Your task to perform on an android device: change the clock display to show seconds Image 0: 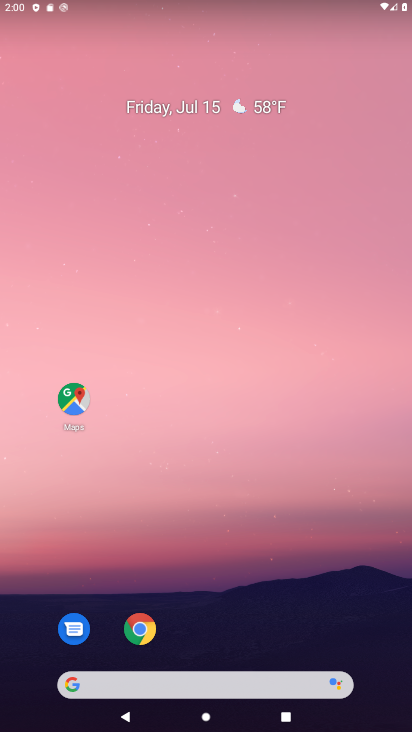
Step 0: drag from (266, 692) to (175, 305)
Your task to perform on an android device: change the clock display to show seconds Image 1: 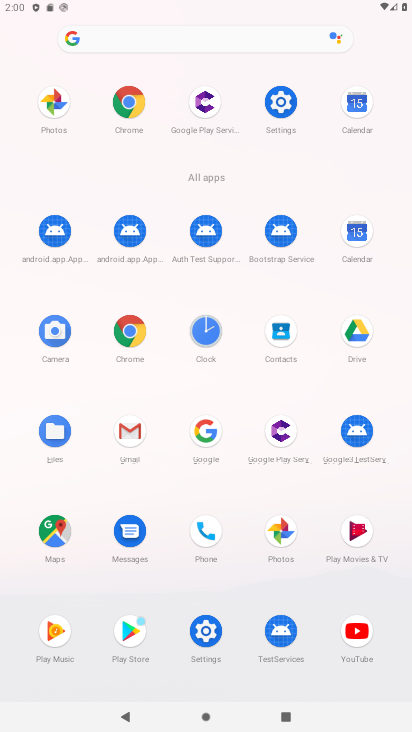
Step 1: click (280, 115)
Your task to perform on an android device: change the clock display to show seconds Image 2: 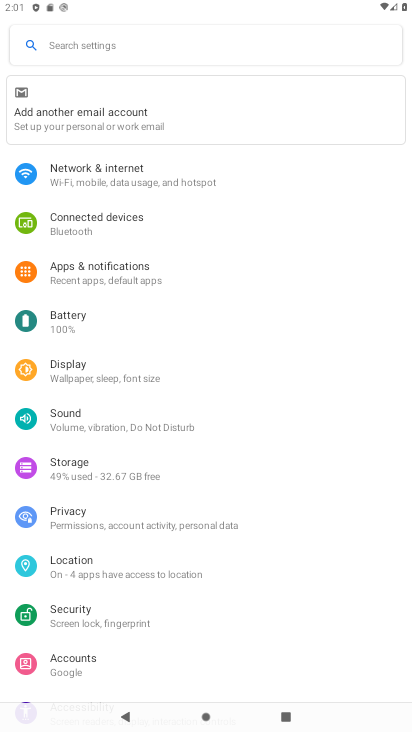
Step 2: click (81, 374)
Your task to perform on an android device: change the clock display to show seconds Image 3: 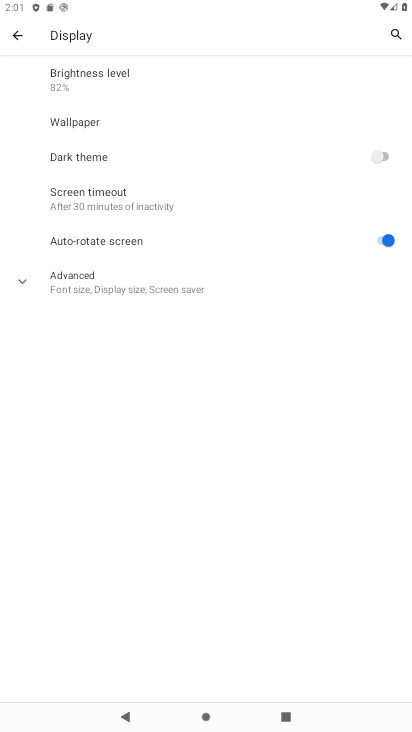
Step 3: click (21, 29)
Your task to perform on an android device: change the clock display to show seconds Image 4: 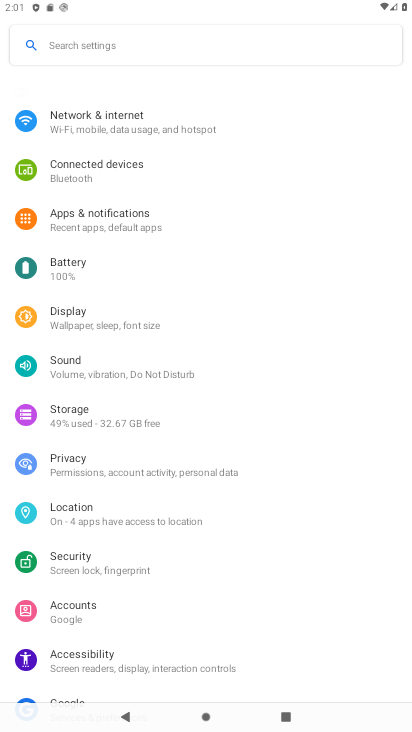
Step 4: press home button
Your task to perform on an android device: change the clock display to show seconds Image 5: 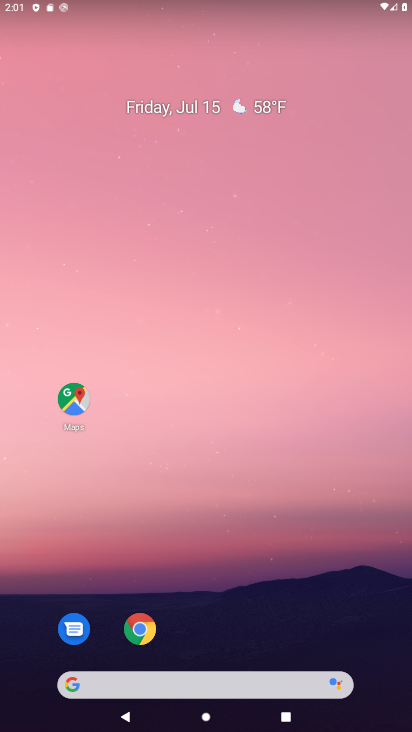
Step 5: click (220, 194)
Your task to perform on an android device: change the clock display to show seconds Image 6: 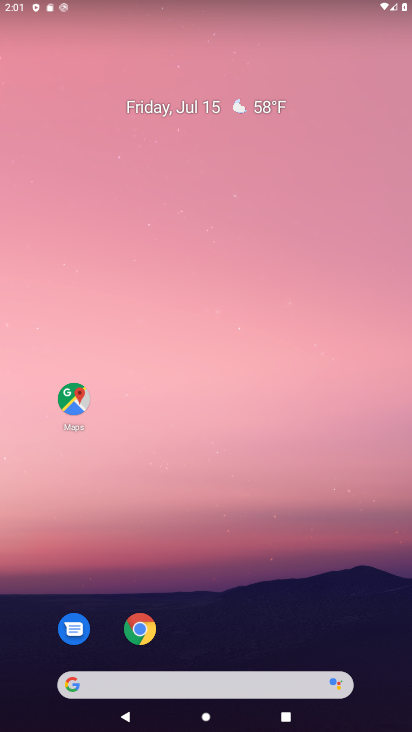
Step 6: click (207, 354)
Your task to perform on an android device: change the clock display to show seconds Image 7: 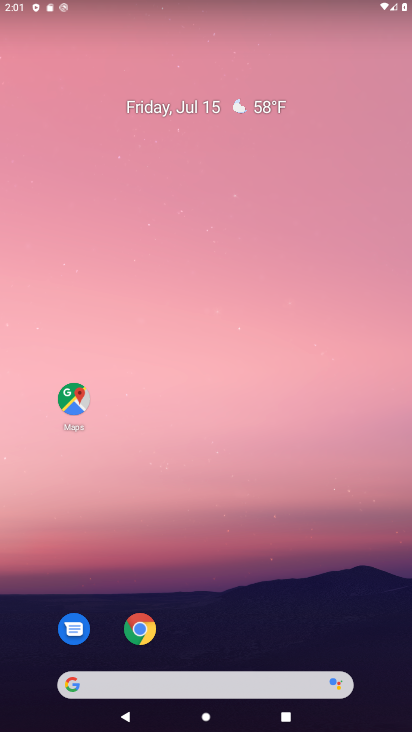
Step 7: drag from (270, 565) to (270, 396)
Your task to perform on an android device: change the clock display to show seconds Image 8: 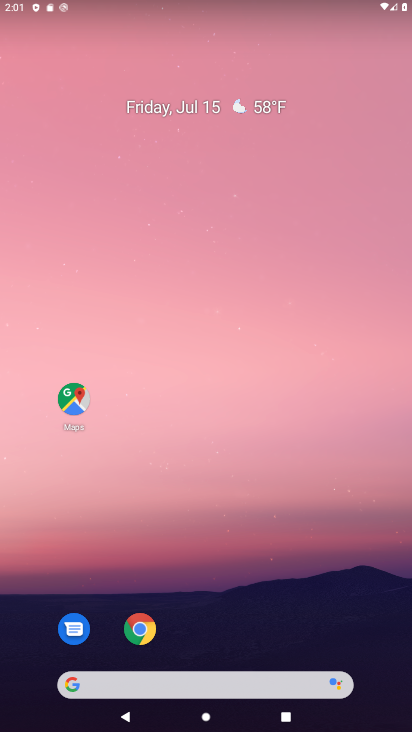
Step 8: drag from (272, 437) to (272, 219)
Your task to perform on an android device: change the clock display to show seconds Image 9: 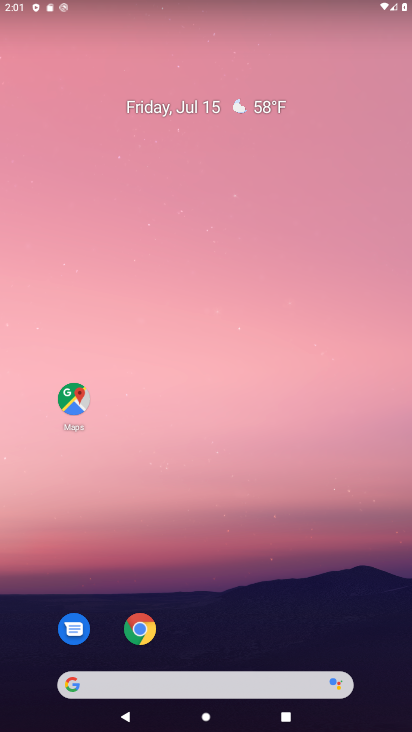
Step 9: drag from (222, 532) to (198, 255)
Your task to perform on an android device: change the clock display to show seconds Image 10: 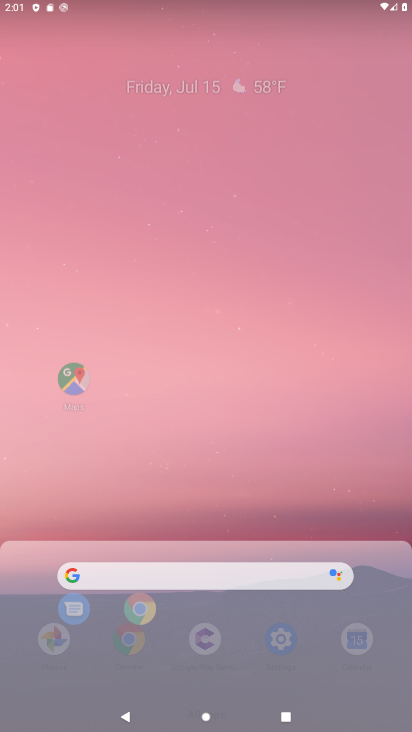
Step 10: drag from (260, 585) to (253, 304)
Your task to perform on an android device: change the clock display to show seconds Image 11: 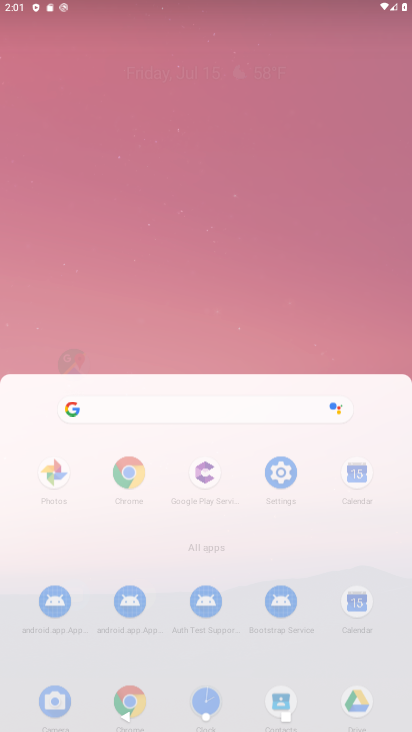
Step 11: drag from (218, 638) to (186, 288)
Your task to perform on an android device: change the clock display to show seconds Image 12: 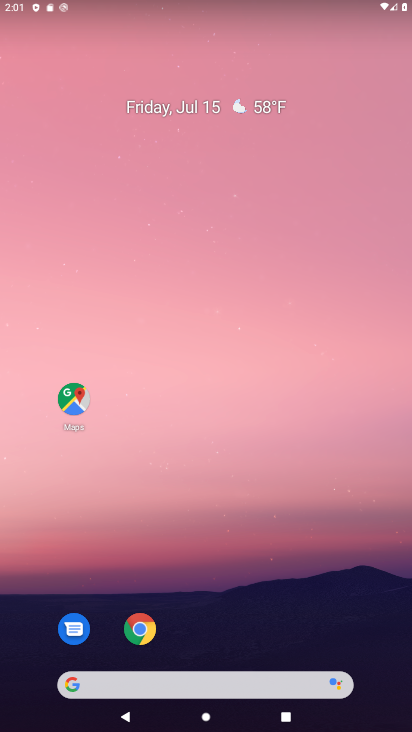
Step 12: drag from (185, 521) to (206, 81)
Your task to perform on an android device: change the clock display to show seconds Image 13: 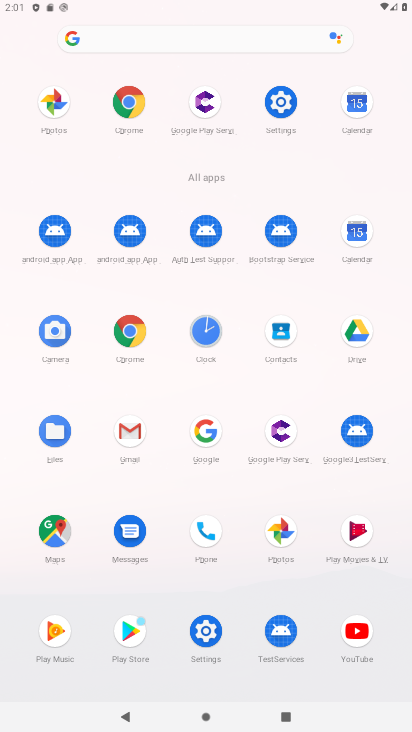
Step 13: drag from (187, 564) to (239, 113)
Your task to perform on an android device: change the clock display to show seconds Image 14: 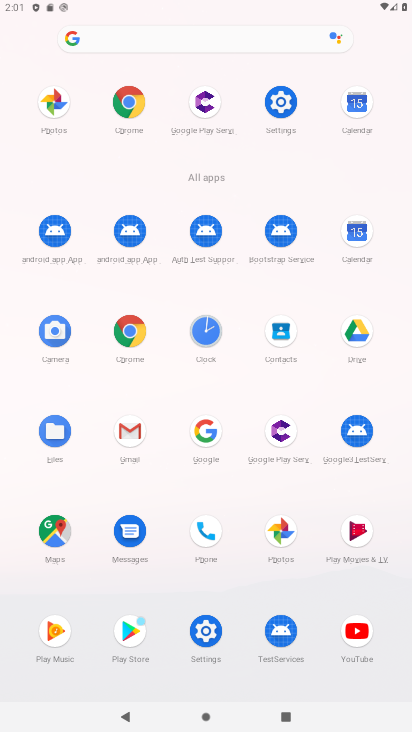
Step 14: click (215, 329)
Your task to perform on an android device: change the clock display to show seconds Image 15: 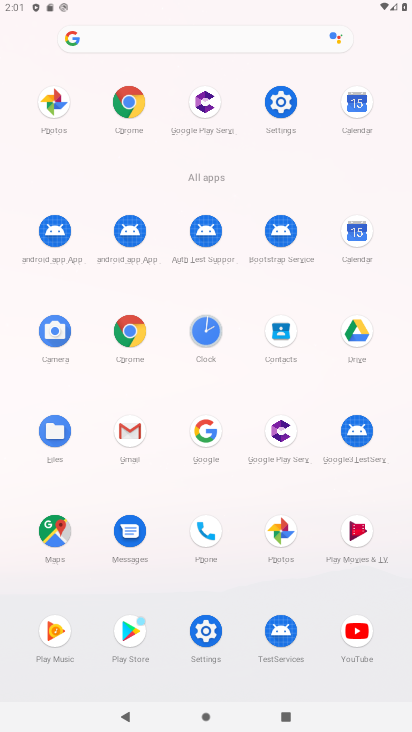
Step 15: click (215, 329)
Your task to perform on an android device: change the clock display to show seconds Image 16: 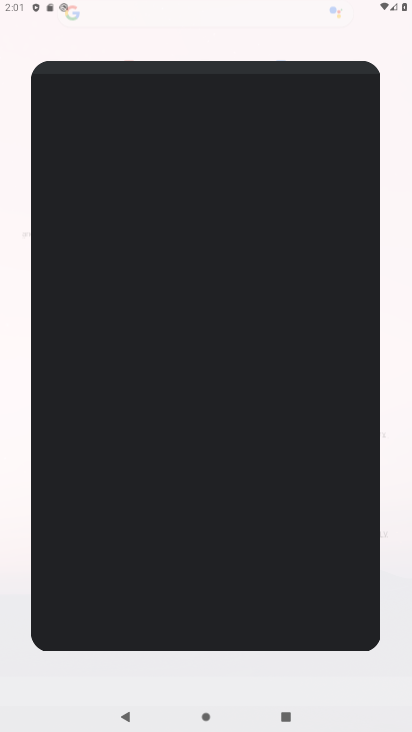
Step 16: click (215, 329)
Your task to perform on an android device: change the clock display to show seconds Image 17: 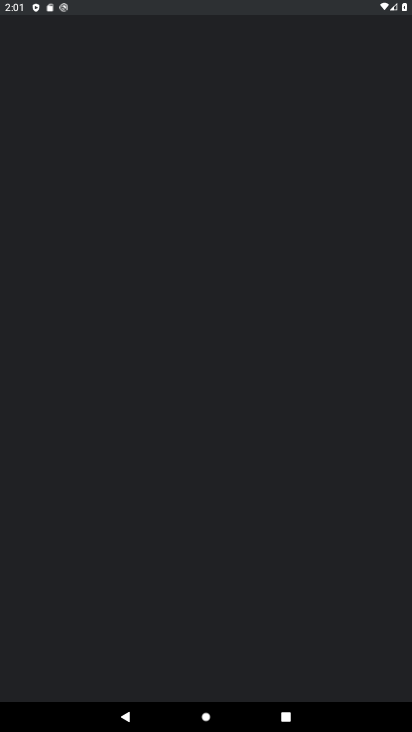
Step 17: click (215, 329)
Your task to perform on an android device: change the clock display to show seconds Image 18: 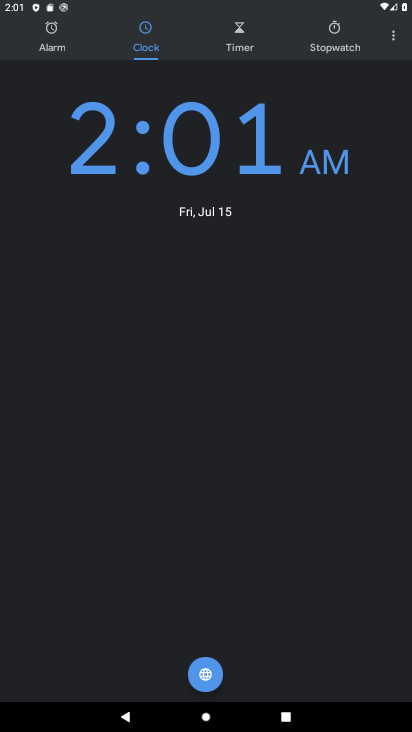
Step 18: click (395, 39)
Your task to perform on an android device: change the clock display to show seconds Image 19: 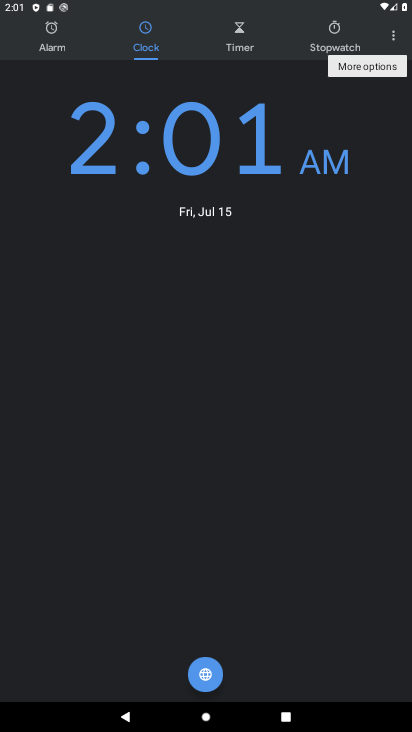
Step 19: click (396, 44)
Your task to perform on an android device: change the clock display to show seconds Image 20: 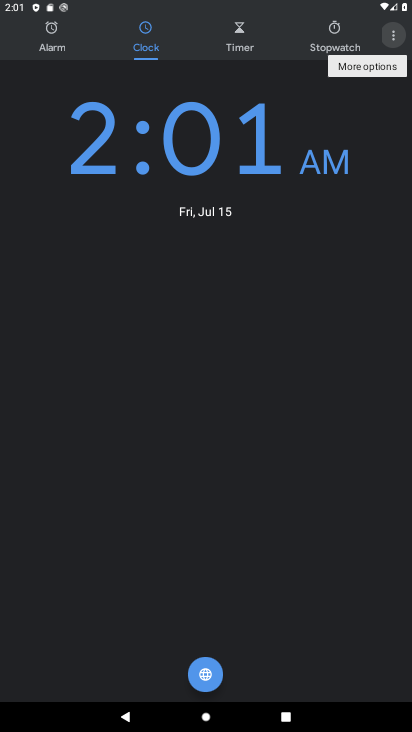
Step 20: click (394, 52)
Your task to perform on an android device: change the clock display to show seconds Image 21: 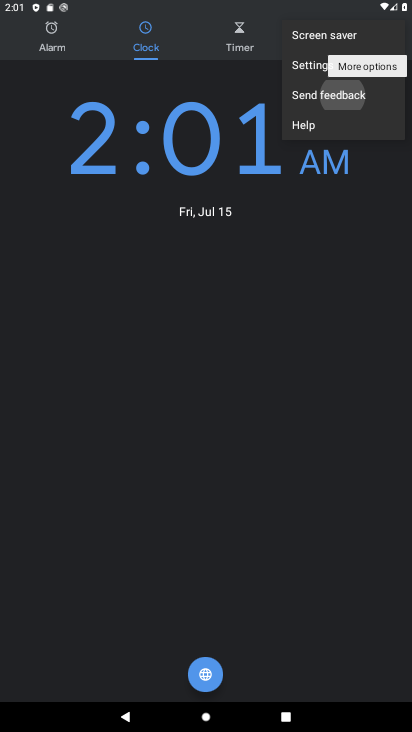
Step 21: click (394, 51)
Your task to perform on an android device: change the clock display to show seconds Image 22: 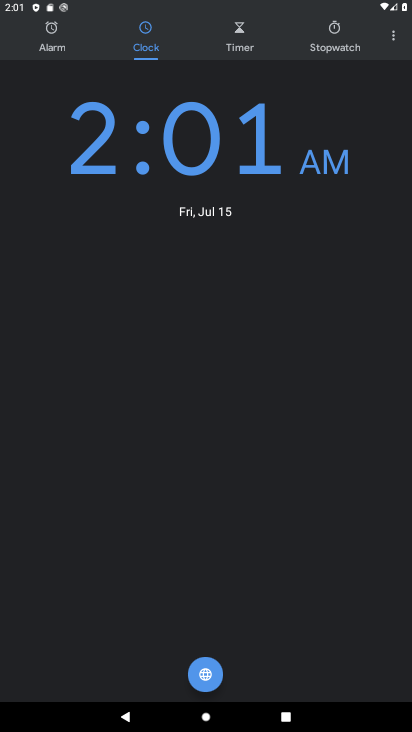
Step 22: click (394, 49)
Your task to perform on an android device: change the clock display to show seconds Image 23: 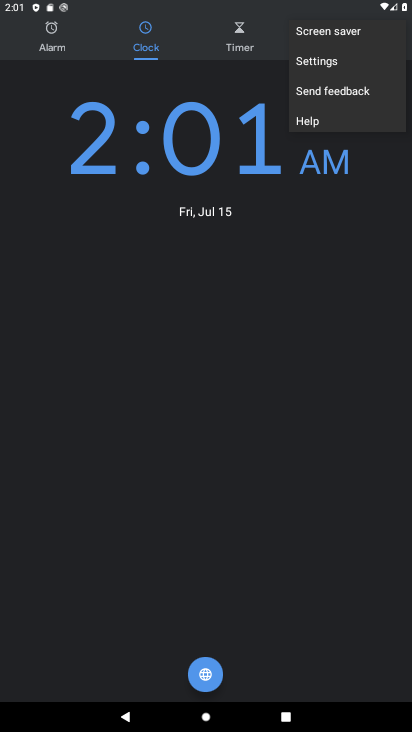
Step 23: click (394, 49)
Your task to perform on an android device: change the clock display to show seconds Image 24: 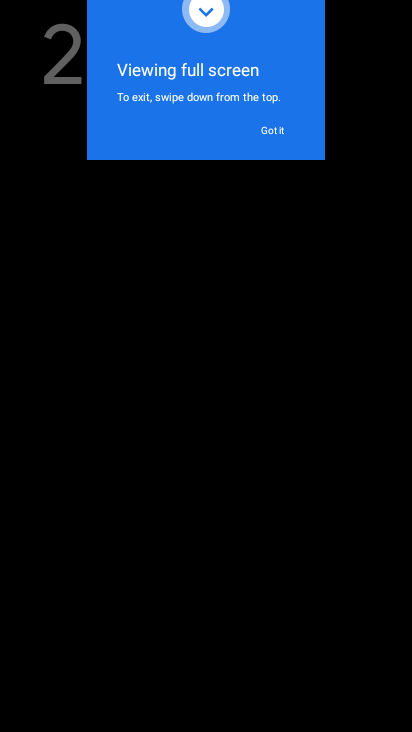
Step 24: press back button
Your task to perform on an android device: change the clock display to show seconds Image 25: 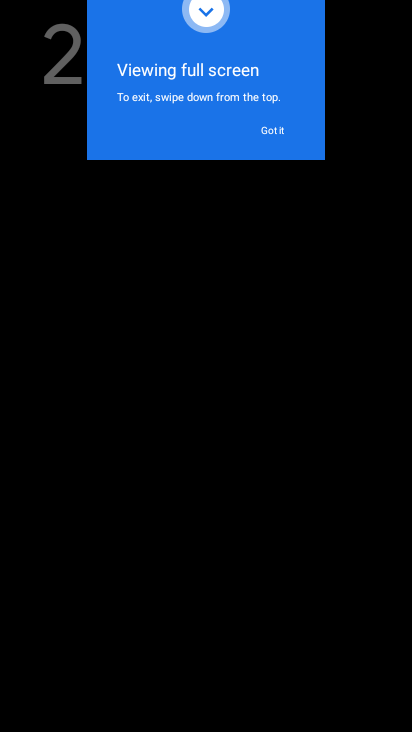
Step 25: click (277, 139)
Your task to perform on an android device: change the clock display to show seconds Image 26: 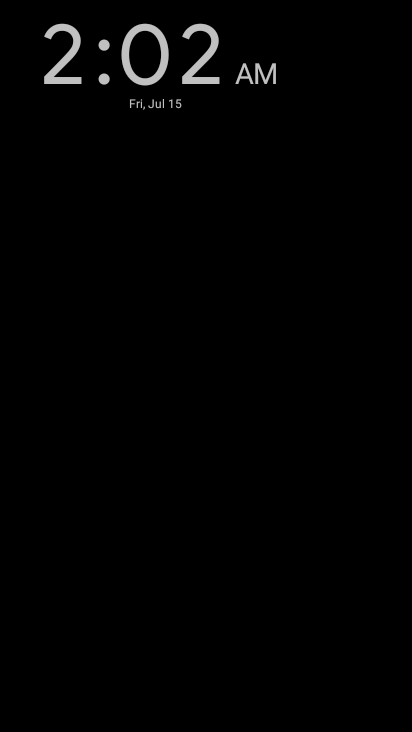
Step 26: press back button
Your task to perform on an android device: change the clock display to show seconds Image 27: 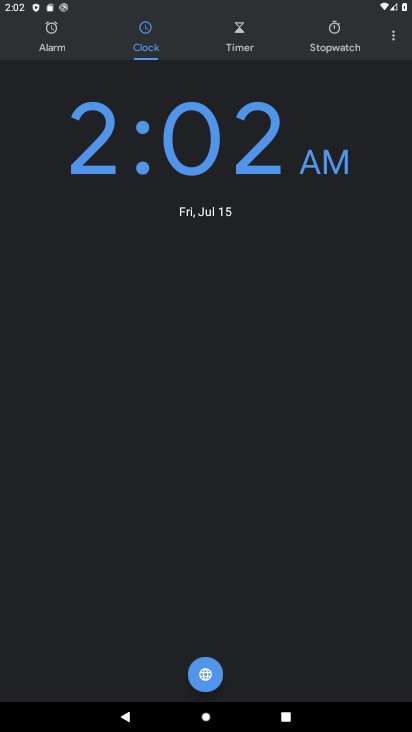
Step 27: click (264, 210)
Your task to perform on an android device: change the clock display to show seconds Image 28: 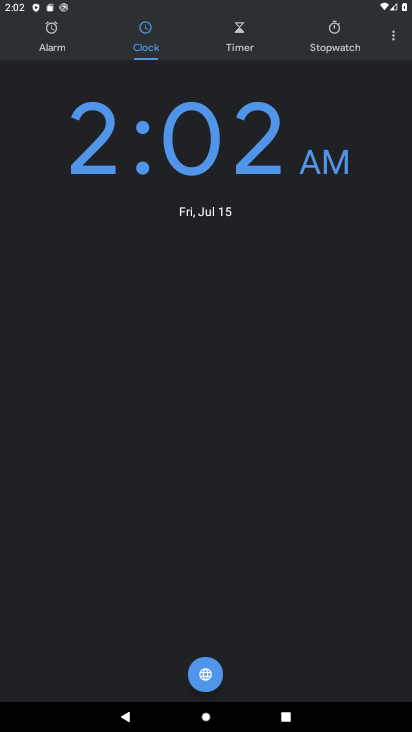
Step 28: click (395, 39)
Your task to perform on an android device: change the clock display to show seconds Image 29: 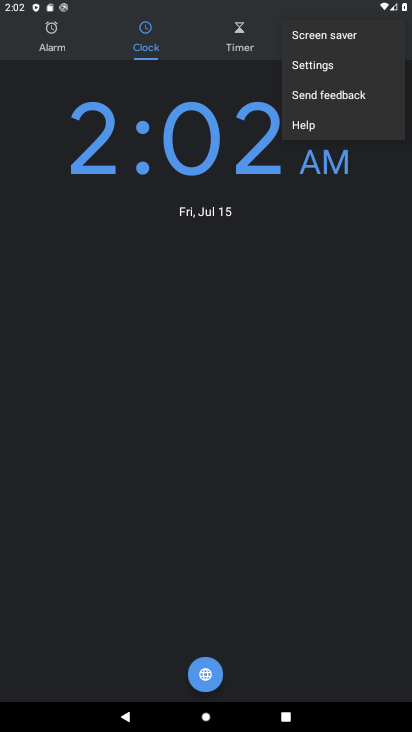
Step 29: click (322, 70)
Your task to perform on an android device: change the clock display to show seconds Image 30: 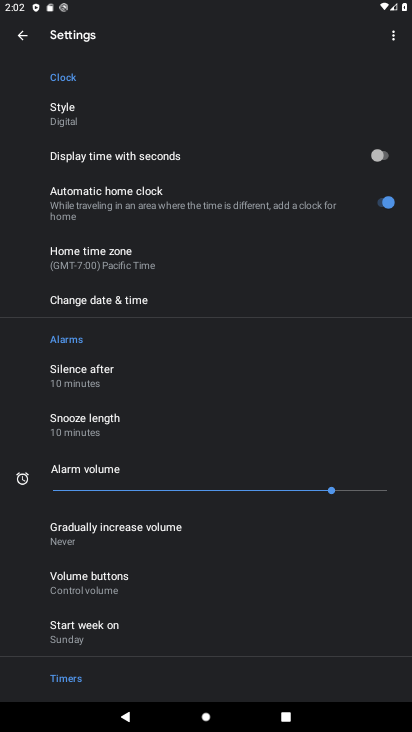
Step 30: drag from (106, 565) to (119, 207)
Your task to perform on an android device: change the clock display to show seconds Image 31: 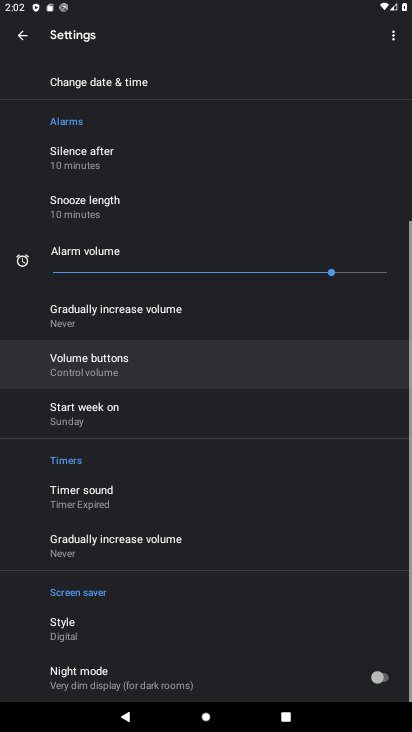
Step 31: drag from (94, 481) to (94, 221)
Your task to perform on an android device: change the clock display to show seconds Image 32: 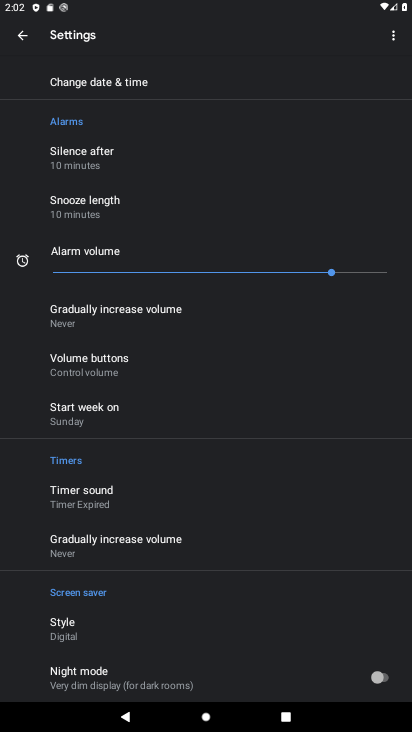
Step 32: drag from (80, 152) to (82, 486)
Your task to perform on an android device: change the clock display to show seconds Image 33: 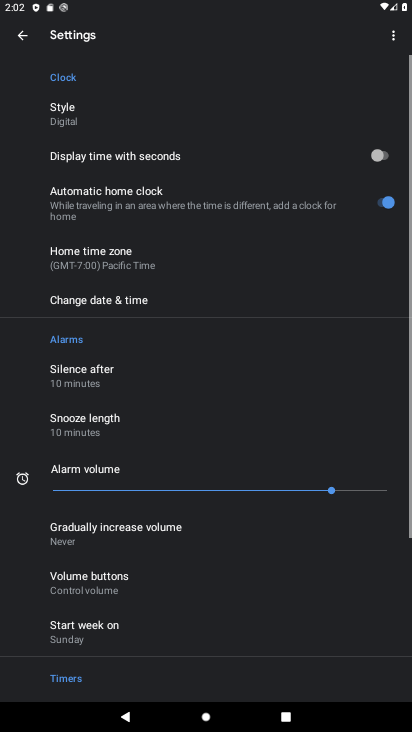
Step 33: drag from (205, 235) to (179, 596)
Your task to perform on an android device: change the clock display to show seconds Image 34: 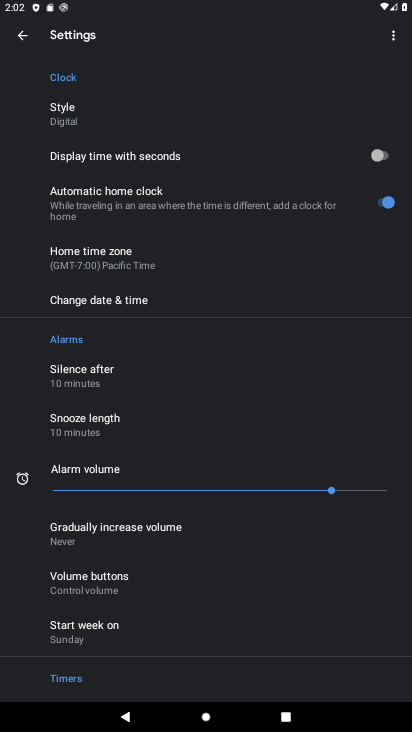
Step 34: click (373, 159)
Your task to perform on an android device: change the clock display to show seconds Image 35: 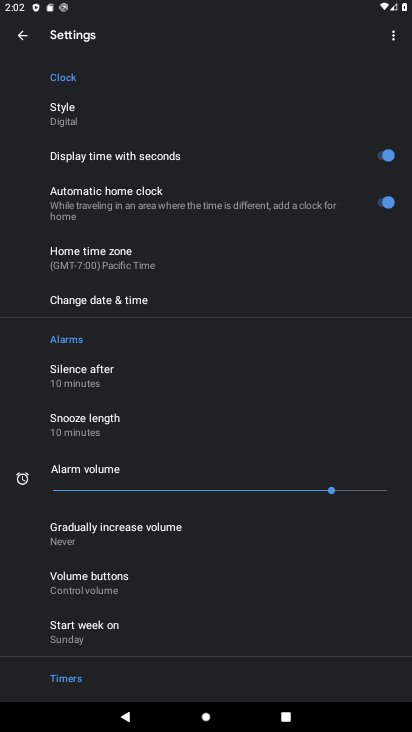
Step 35: task complete